Your task to perform on an android device: toggle pop-ups in chrome Image 0: 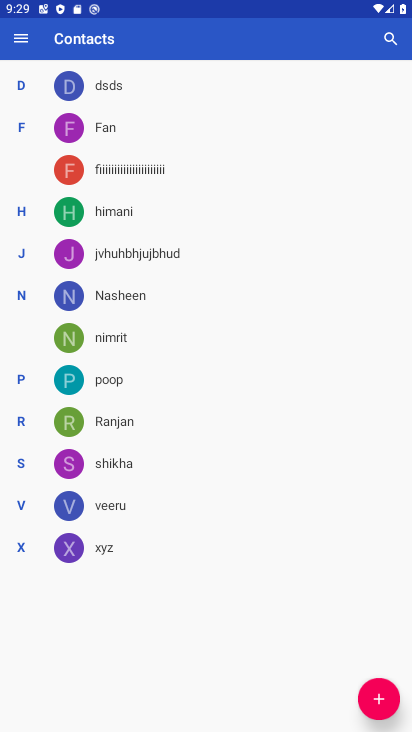
Step 0: press back button
Your task to perform on an android device: toggle pop-ups in chrome Image 1: 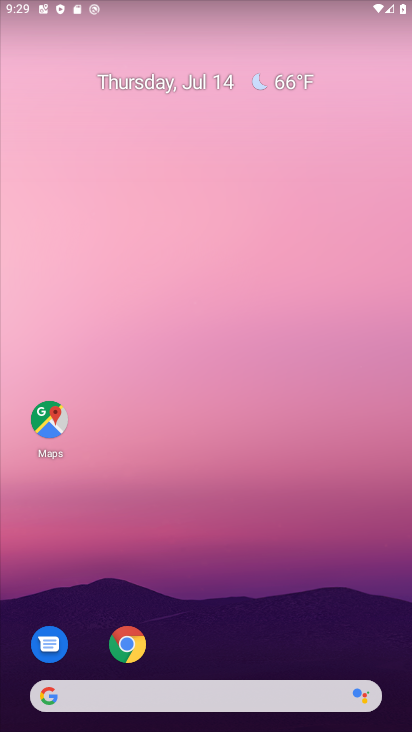
Step 1: press home button
Your task to perform on an android device: toggle pop-ups in chrome Image 2: 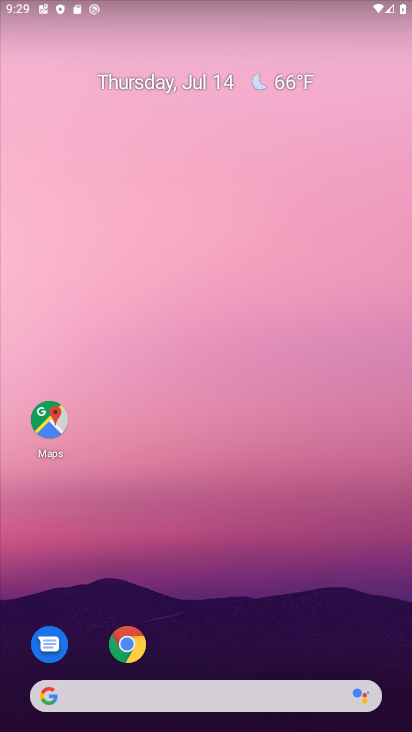
Step 2: drag from (271, 672) to (197, 144)
Your task to perform on an android device: toggle pop-ups in chrome Image 3: 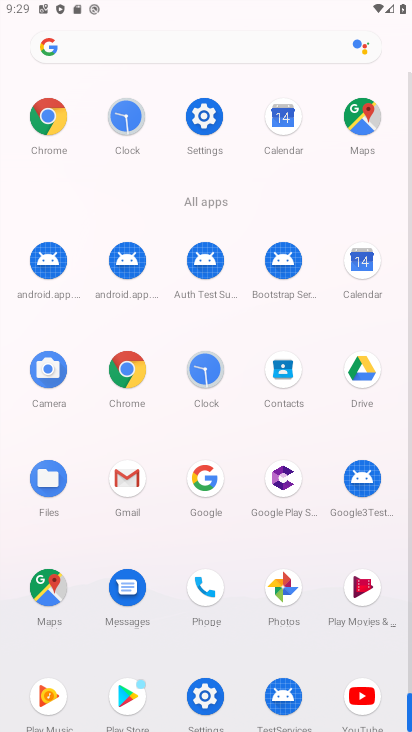
Step 3: click (196, 112)
Your task to perform on an android device: toggle pop-ups in chrome Image 4: 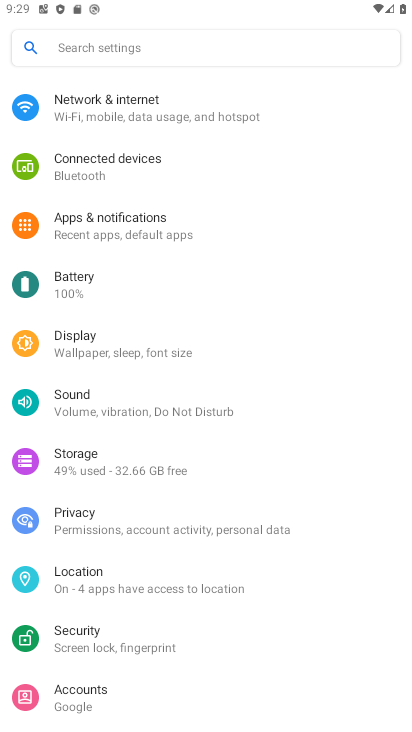
Step 4: drag from (221, 583) to (165, 52)
Your task to perform on an android device: toggle pop-ups in chrome Image 5: 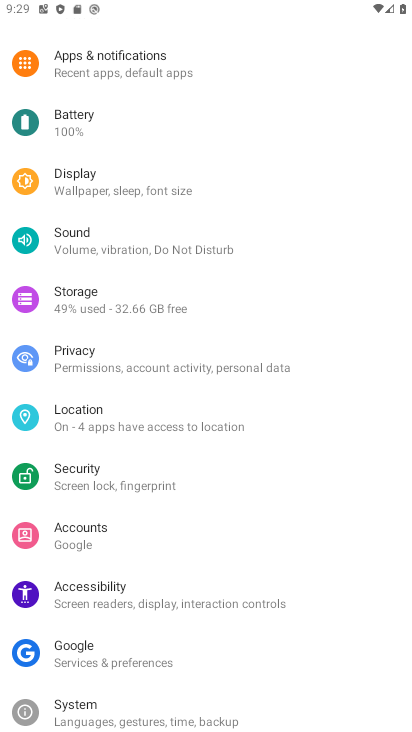
Step 5: press back button
Your task to perform on an android device: toggle pop-ups in chrome Image 6: 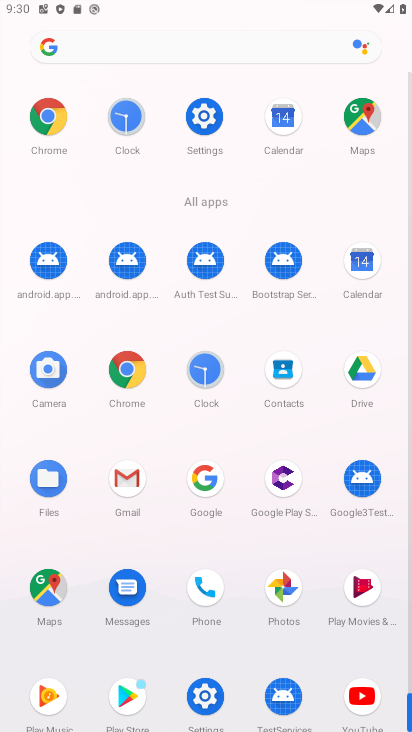
Step 6: click (120, 365)
Your task to perform on an android device: toggle pop-ups in chrome Image 7: 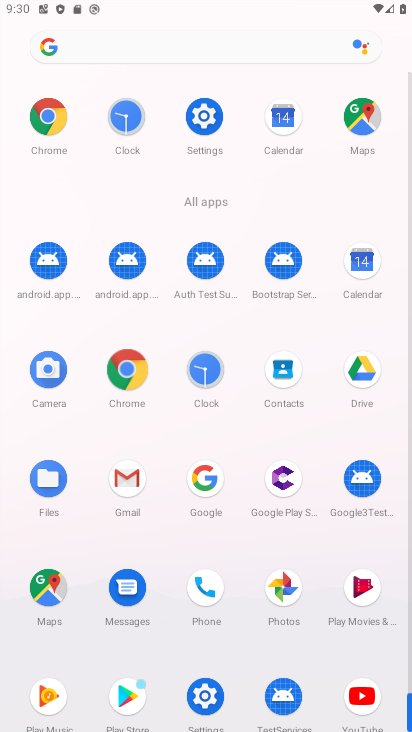
Step 7: click (121, 366)
Your task to perform on an android device: toggle pop-ups in chrome Image 8: 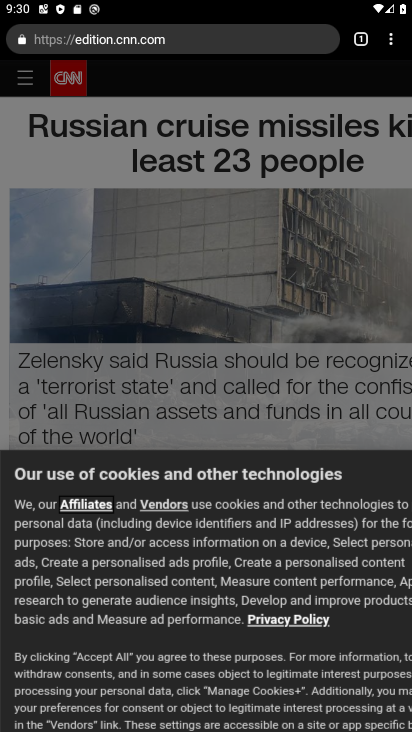
Step 8: click (391, 43)
Your task to perform on an android device: toggle pop-ups in chrome Image 9: 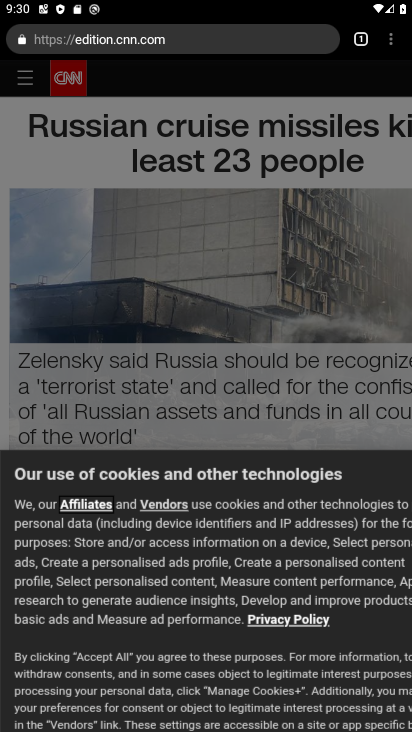
Step 9: drag from (391, 42) to (251, 468)
Your task to perform on an android device: toggle pop-ups in chrome Image 10: 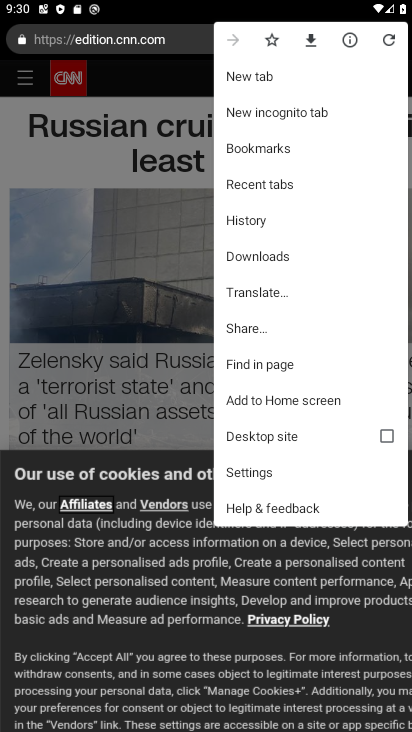
Step 10: click (249, 464)
Your task to perform on an android device: toggle pop-ups in chrome Image 11: 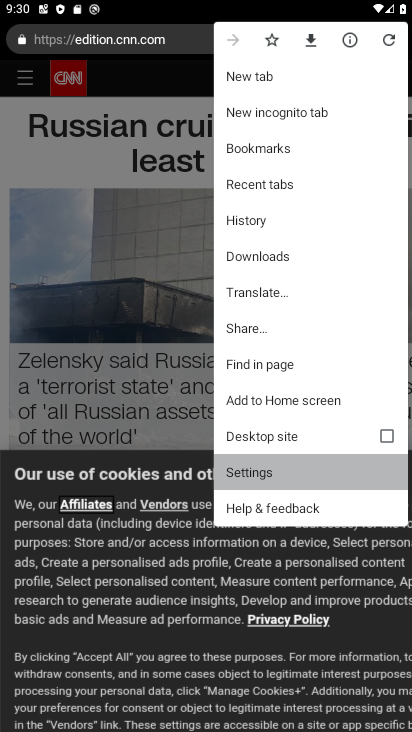
Step 11: click (261, 478)
Your task to perform on an android device: toggle pop-ups in chrome Image 12: 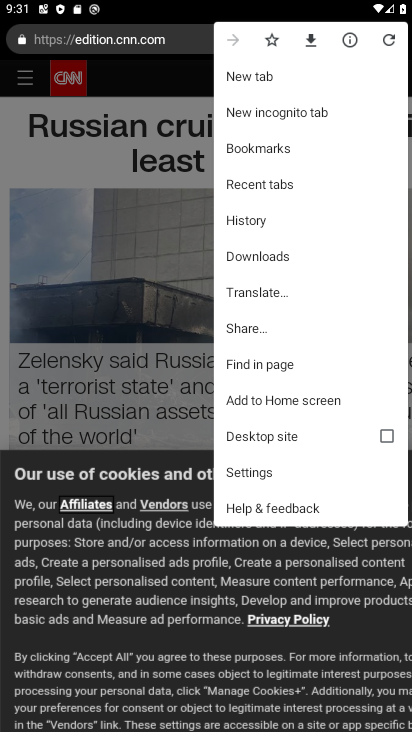
Step 12: click (245, 473)
Your task to perform on an android device: toggle pop-ups in chrome Image 13: 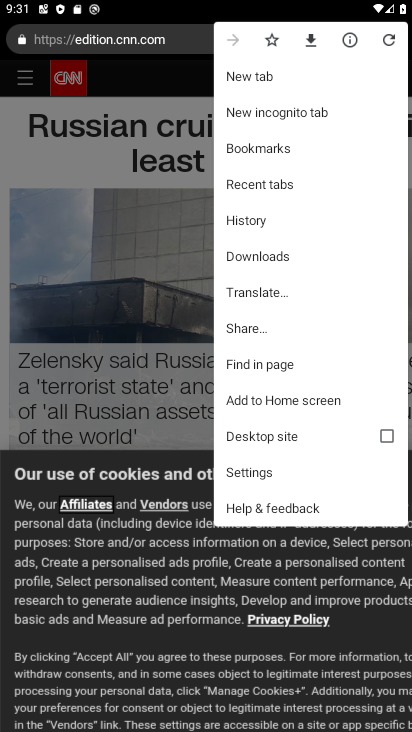
Step 13: click (248, 472)
Your task to perform on an android device: toggle pop-ups in chrome Image 14: 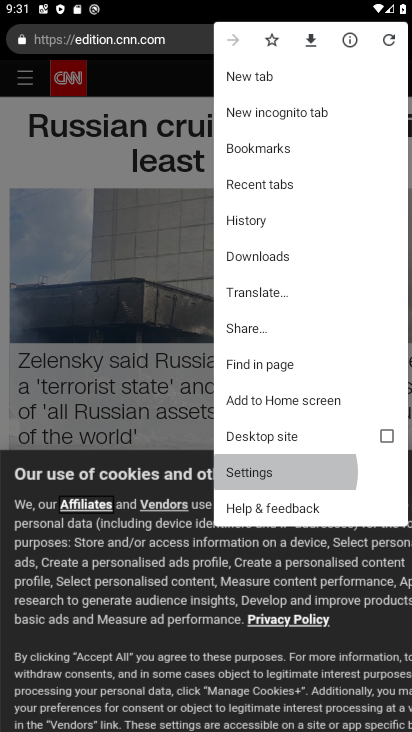
Step 14: click (249, 466)
Your task to perform on an android device: toggle pop-ups in chrome Image 15: 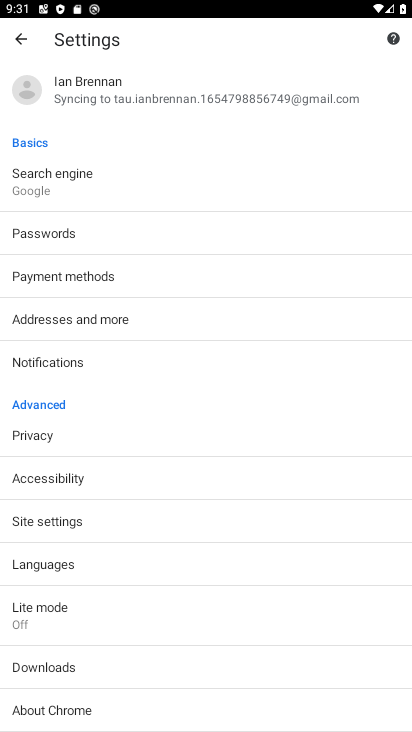
Step 15: click (38, 525)
Your task to perform on an android device: toggle pop-ups in chrome Image 16: 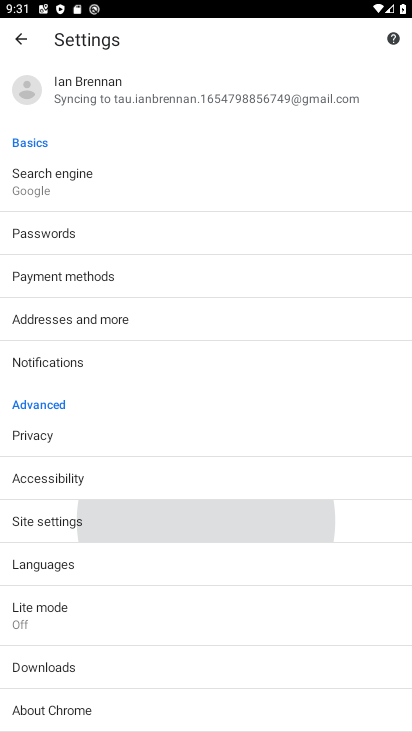
Step 16: click (40, 520)
Your task to perform on an android device: toggle pop-ups in chrome Image 17: 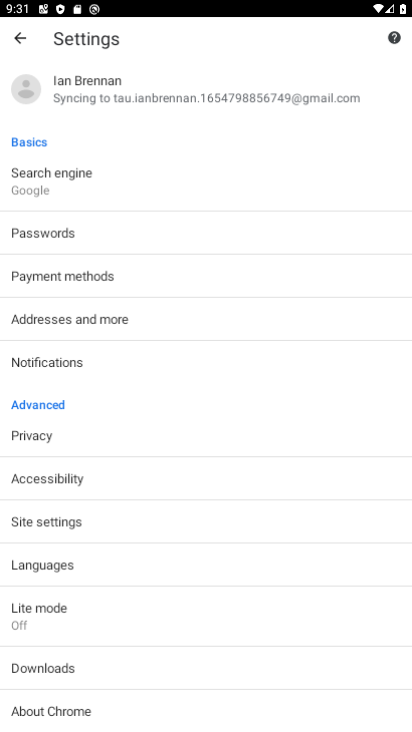
Step 17: click (42, 520)
Your task to perform on an android device: toggle pop-ups in chrome Image 18: 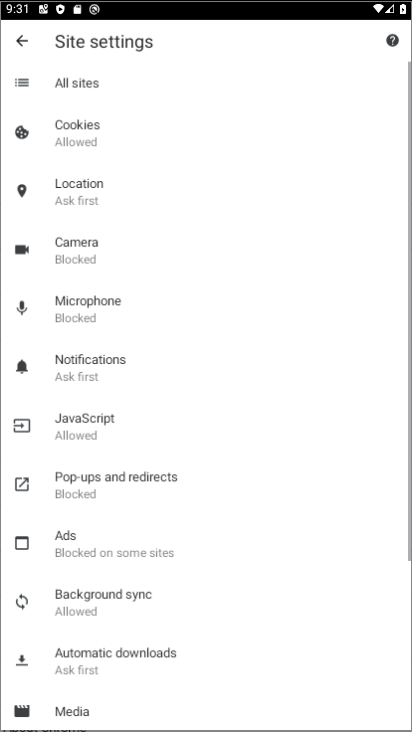
Step 18: click (43, 519)
Your task to perform on an android device: toggle pop-ups in chrome Image 19: 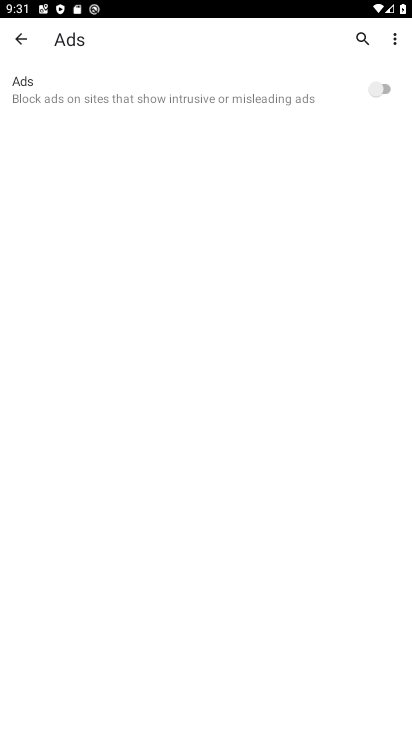
Step 19: click (15, 42)
Your task to perform on an android device: toggle pop-ups in chrome Image 20: 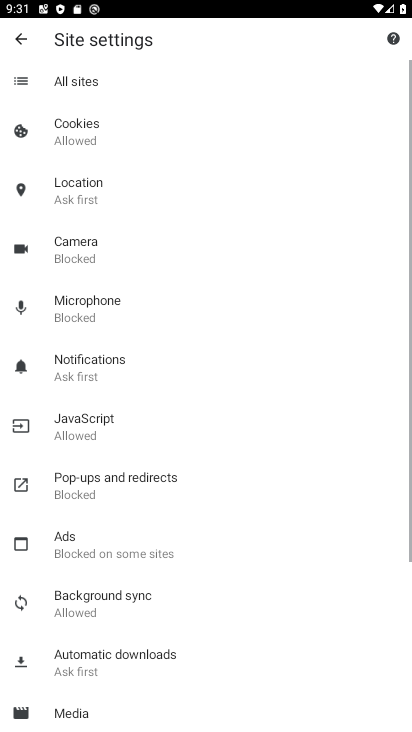
Step 20: click (79, 498)
Your task to perform on an android device: toggle pop-ups in chrome Image 21: 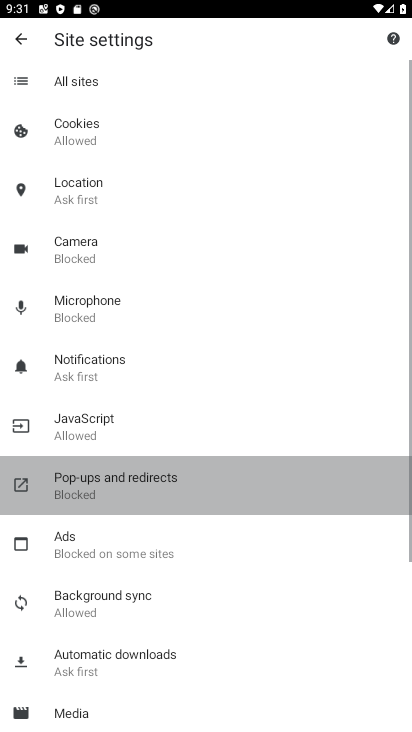
Step 21: click (79, 498)
Your task to perform on an android device: toggle pop-ups in chrome Image 22: 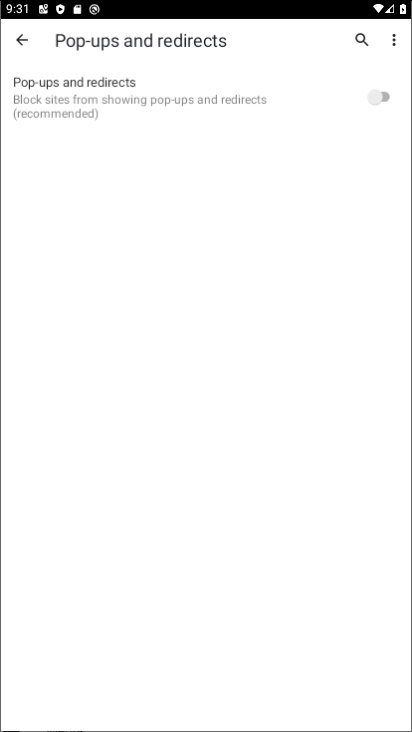
Step 22: click (79, 497)
Your task to perform on an android device: toggle pop-ups in chrome Image 23: 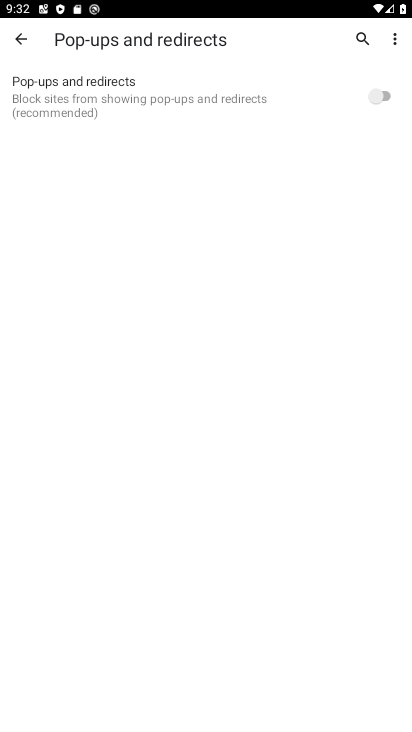
Step 23: click (376, 96)
Your task to perform on an android device: toggle pop-ups in chrome Image 24: 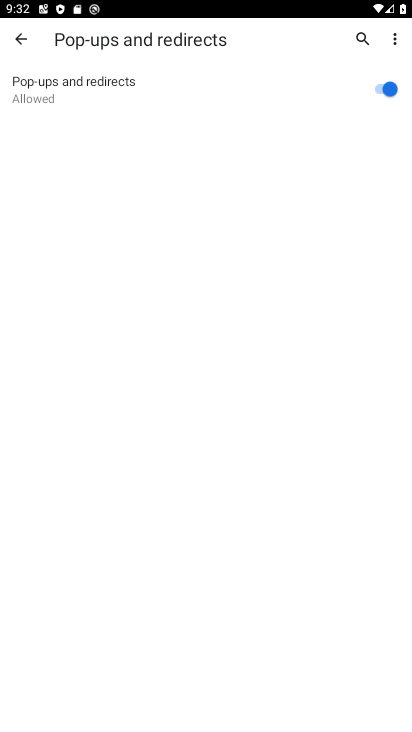
Step 24: task complete